Your task to perform on an android device: check battery use Image 0: 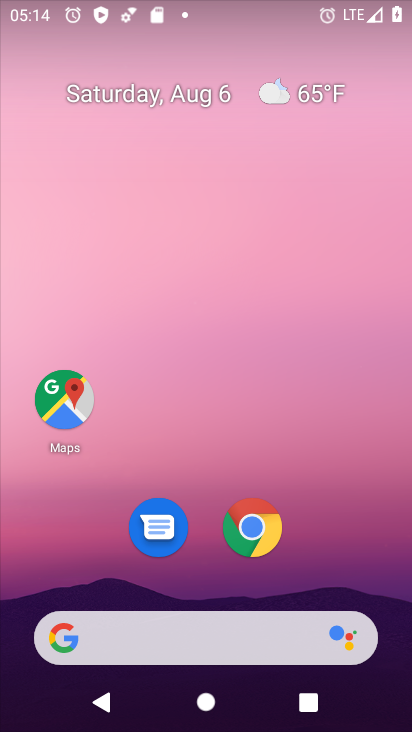
Step 0: drag from (199, 613) to (230, 0)
Your task to perform on an android device: check battery use Image 1: 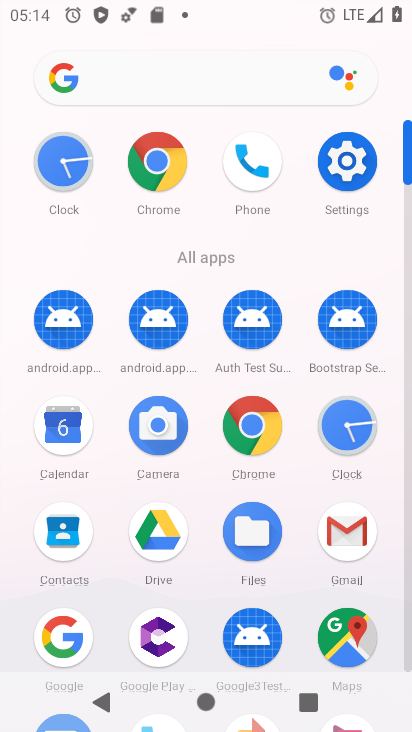
Step 1: click (344, 177)
Your task to perform on an android device: check battery use Image 2: 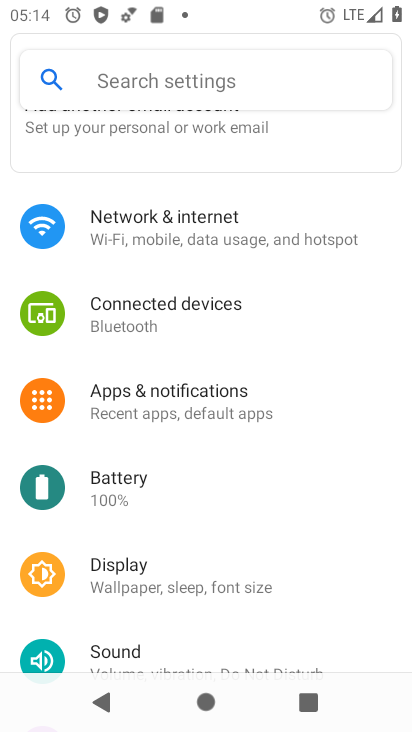
Step 2: click (117, 486)
Your task to perform on an android device: check battery use Image 3: 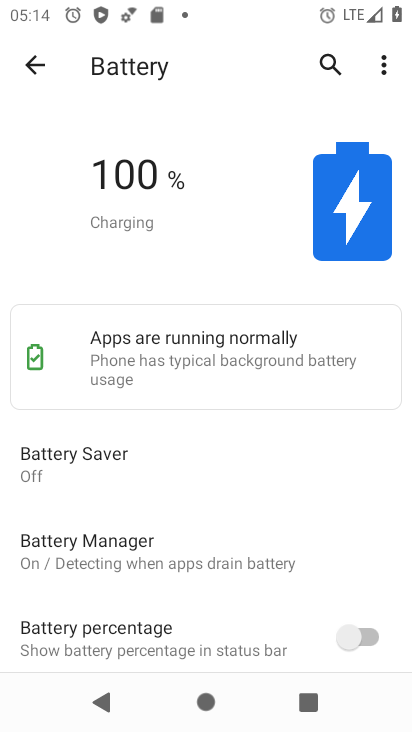
Step 3: click (382, 53)
Your task to perform on an android device: check battery use Image 4: 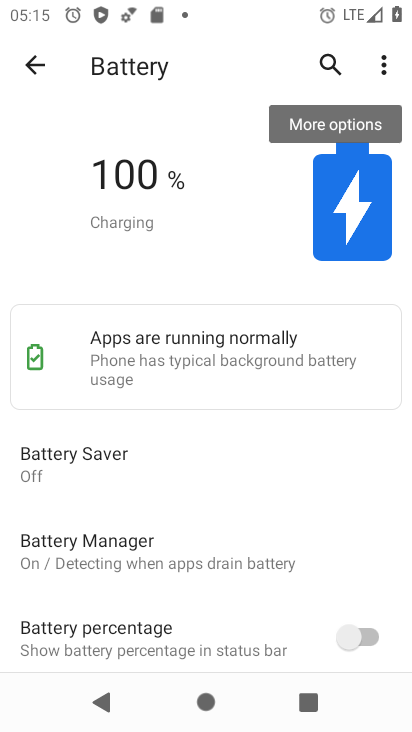
Step 4: click (382, 53)
Your task to perform on an android device: check battery use Image 5: 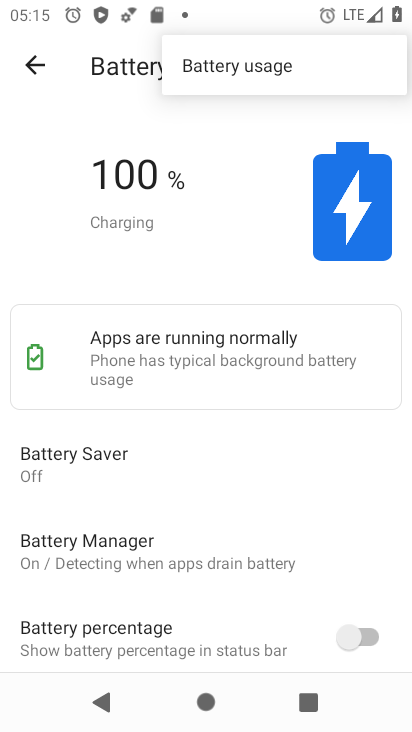
Step 5: click (288, 51)
Your task to perform on an android device: check battery use Image 6: 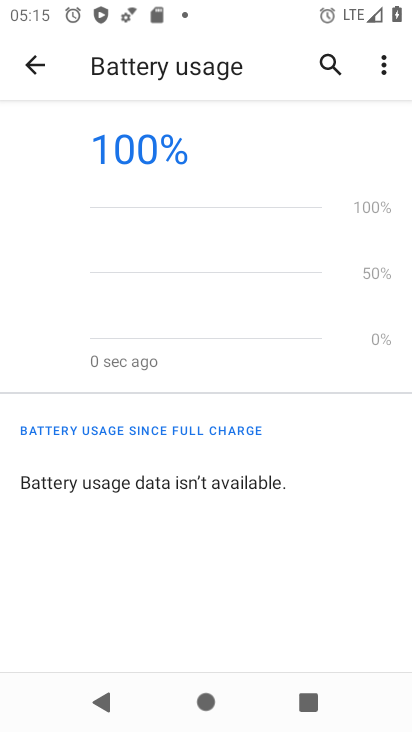
Step 6: task complete